Your task to perform on an android device: What's on my calendar tomorrow? Image 0: 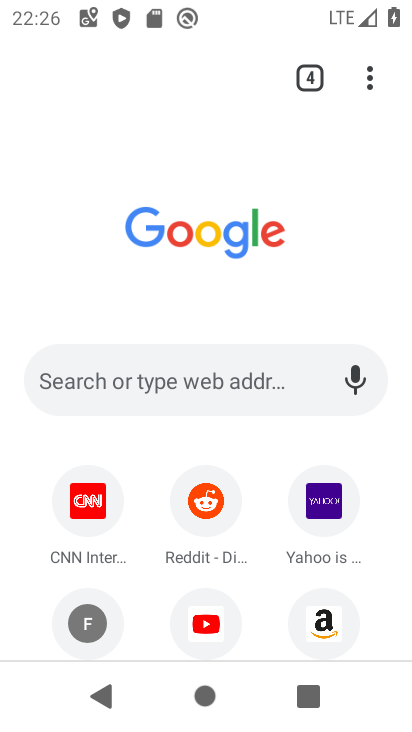
Step 0: press back button
Your task to perform on an android device: What's on my calendar tomorrow? Image 1: 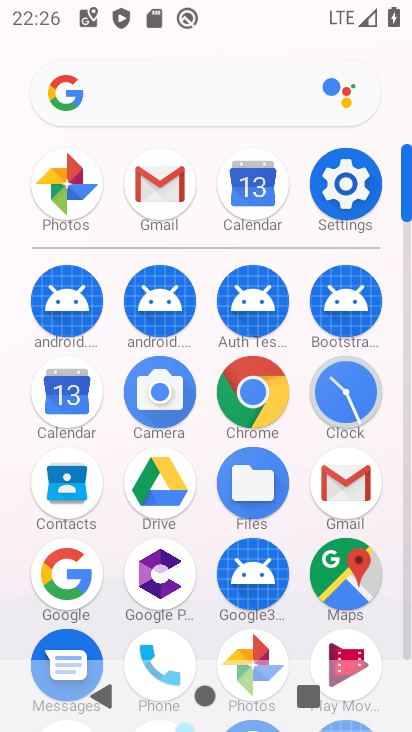
Step 1: click (52, 395)
Your task to perform on an android device: What's on my calendar tomorrow? Image 2: 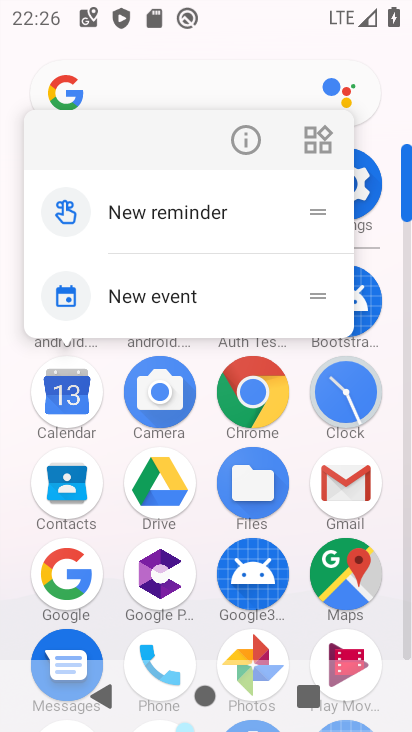
Step 2: click (80, 395)
Your task to perform on an android device: What's on my calendar tomorrow? Image 3: 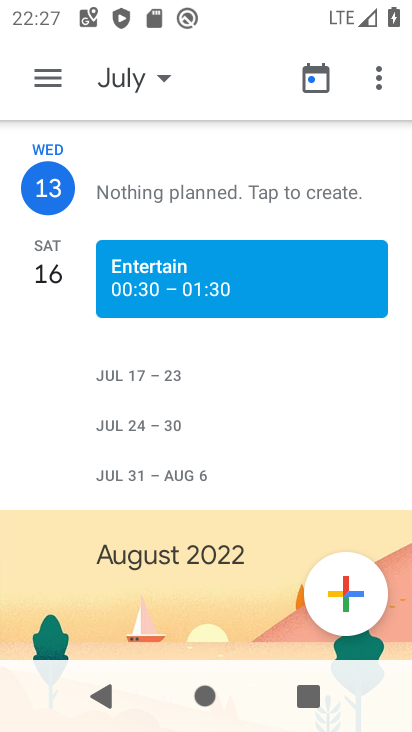
Step 3: click (126, 75)
Your task to perform on an android device: What's on my calendar tomorrow? Image 4: 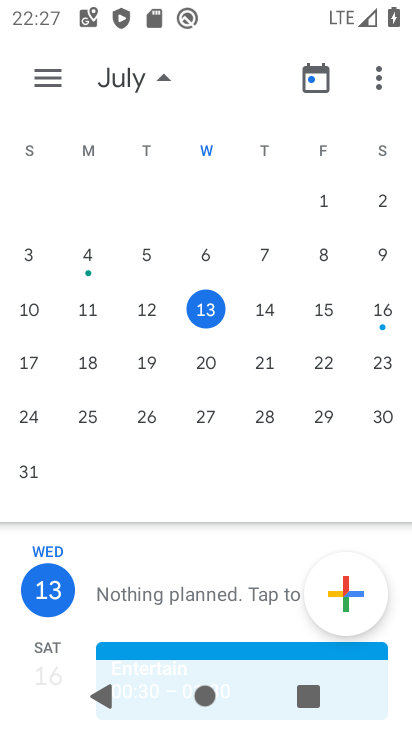
Step 4: click (259, 311)
Your task to perform on an android device: What's on my calendar tomorrow? Image 5: 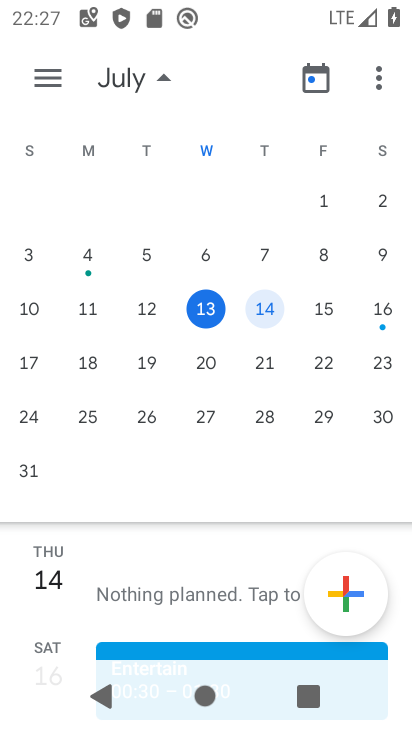
Step 5: task complete